Your task to perform on an android device: turn off picture-in-picture Image 0: 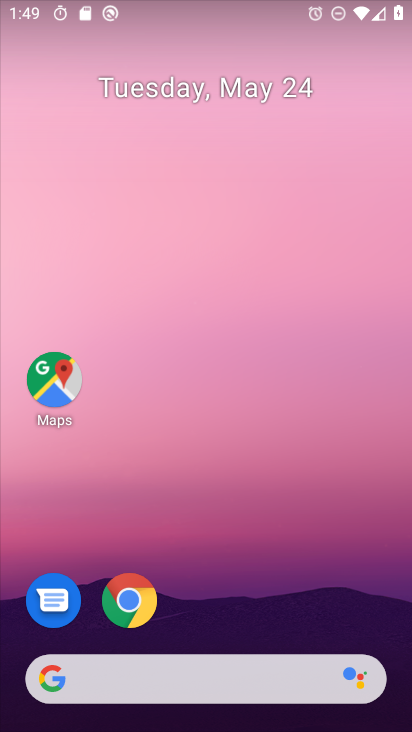
Step 0: click (131, 599)
Your task to perform on an android device: turn off picture-in-picture Image 1: 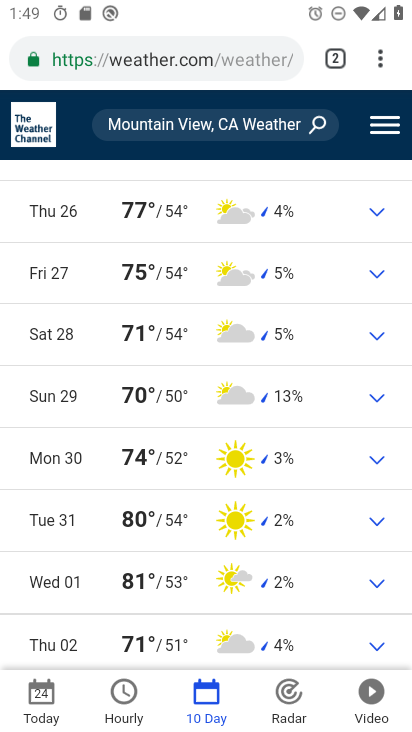
Step 1: press home button
Your task to perform on an android device: turn off picture-in-picture Image 2: 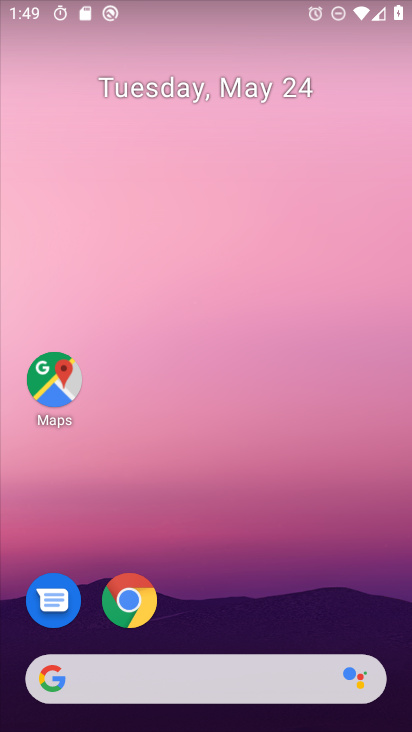
Step 2: click (132, 595)
Your task to perform on an android device: turn off picture-in-picture Image 3: 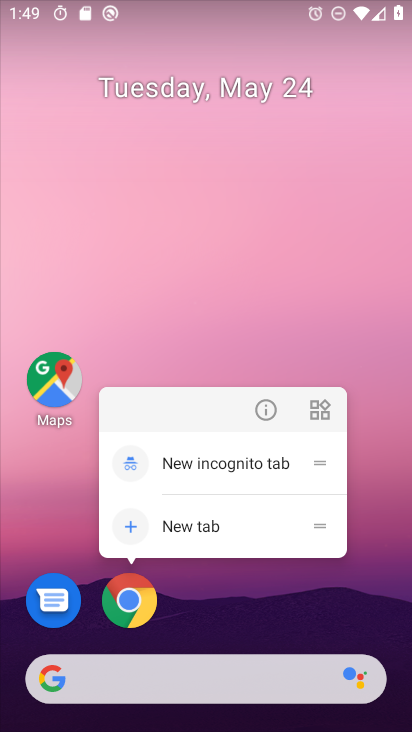
Step 3: click (260, 409)
Your task to perform on an android device: turn off picture-in-picture Image 4: 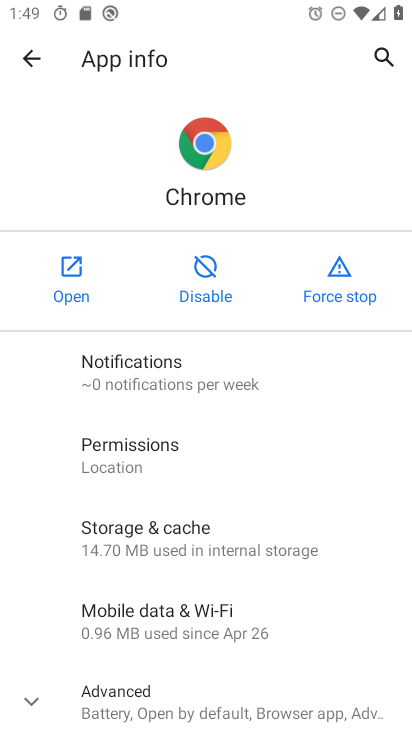
Step 4: drag from (202, 563) to (205, 261)
Your task to perform on an android device: turn off picture-in-picture Image 5: 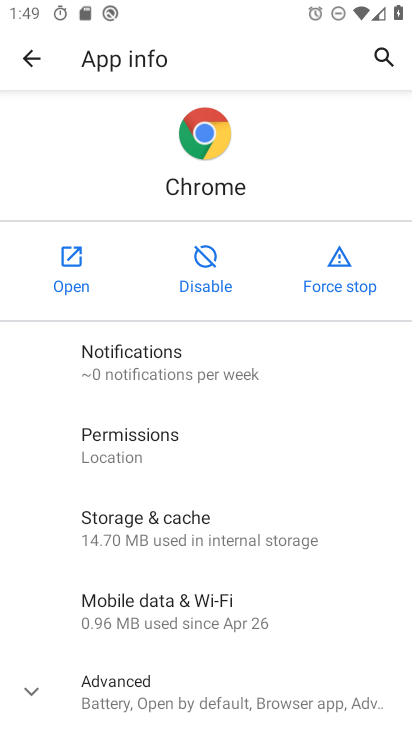
Step 5: click (173, 690)
Your task to perform on an android device: turn off picture-in-picture Image 6: 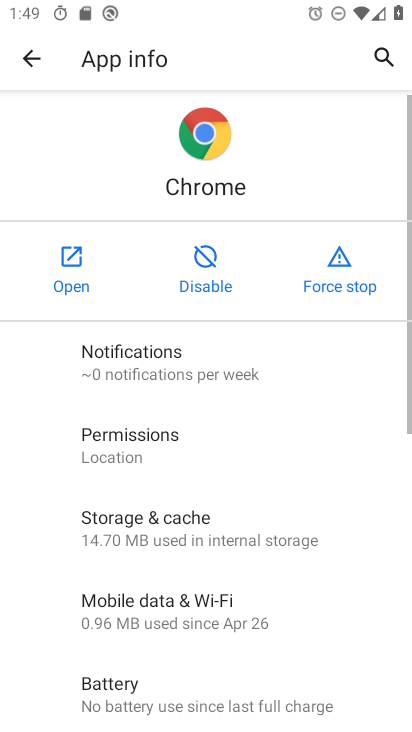
Step 6: drag from (205, 653) to (257, 219)
Your task to perform on an android device: turn off picture-in-picture Image 7: 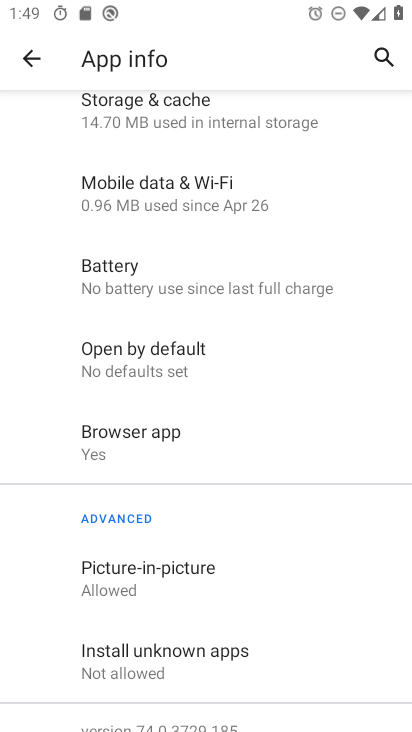
Step 7: drag from (212, 624) to (283, 199)
Your task to perform on an android device: turn off picture-in-picture Image 8: 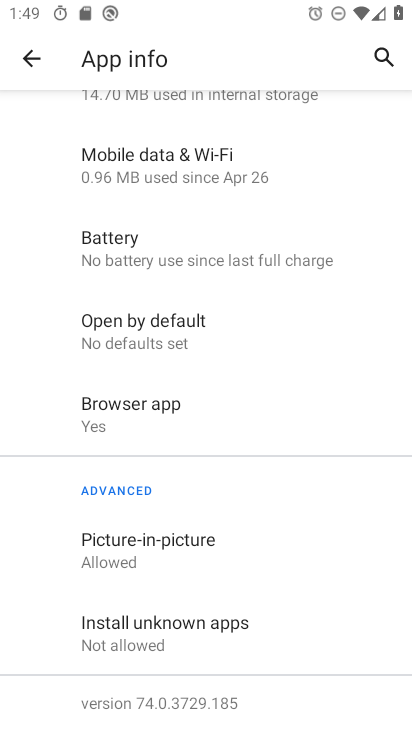
Step 8: click (162, 564)
Your task to perform on an android device: turn off picture-in-picture Image 9: 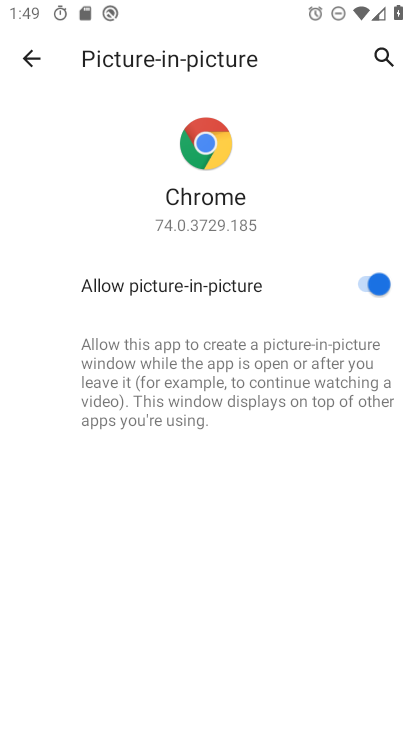
Step 9: click (367, 287)
Your task to perform on an android device: turn off picture-in-picture Image 10: 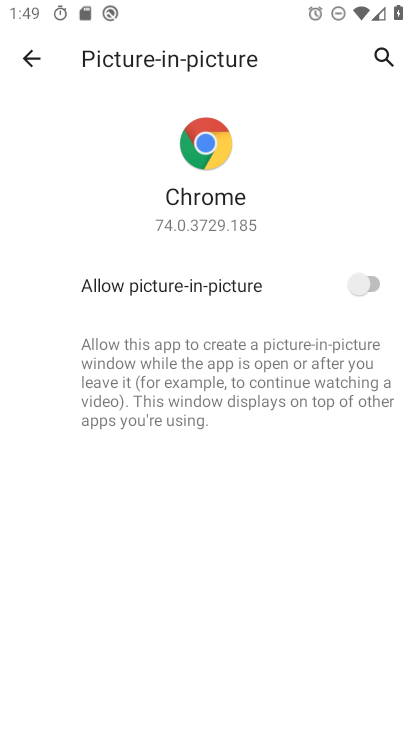
Step 10: task complete